Your task to perform on an android device: Open calendar and show me the first week of next month Image 0: 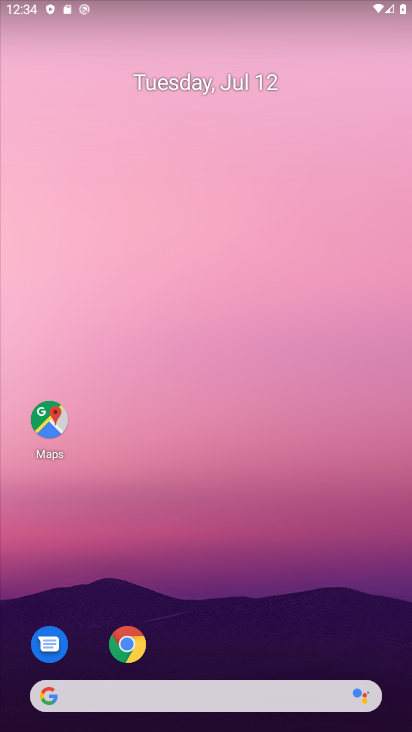
Step 0: drag from (195, 641) to (255, 20)
Your task to perform on an android device: Open calendar and show me the first week of next month Image 1: 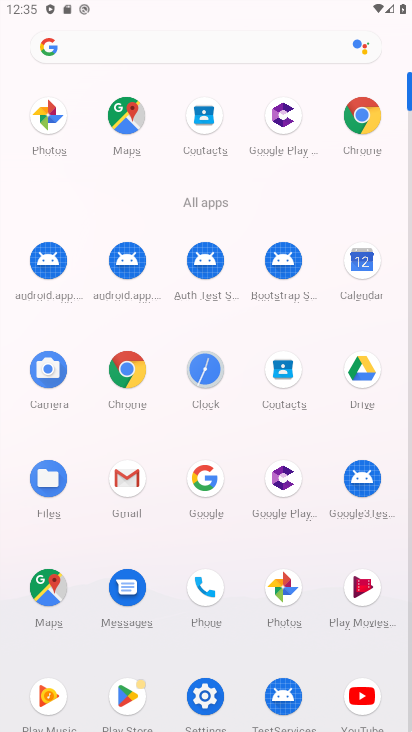
Step 1: click (364, 280)
Your task to perform on an android device: Open calendar and show me the first week of next month Image 2: 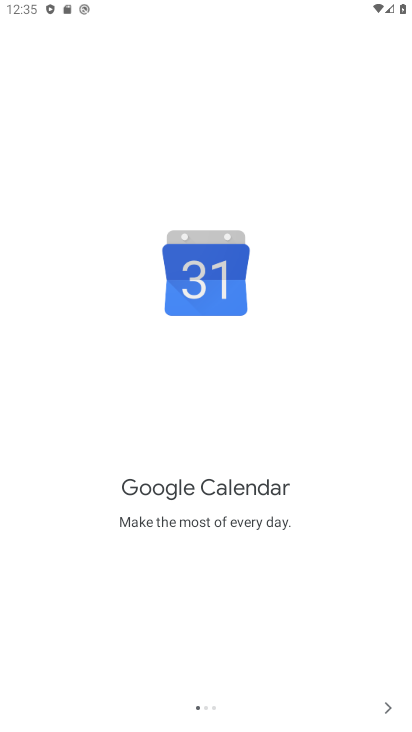
Step 2: click (386, 705)
Your task to perform on an android device: Open calendar and show me the first week of next month Image 3: 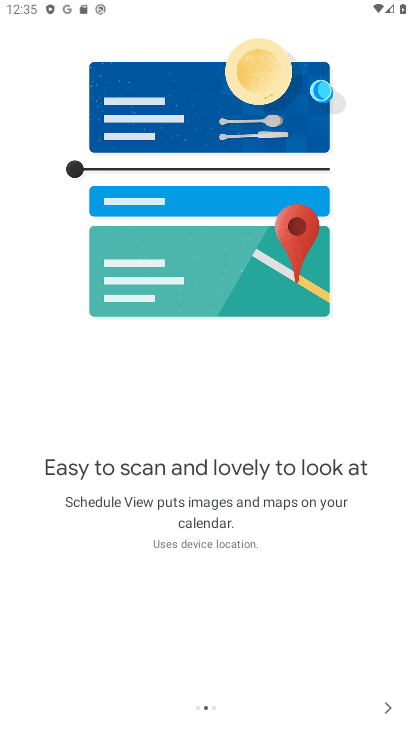
Step 3: click (386, 705)
Your task to perform on an android device: Open calendar and show me the first week of next month Image 4: 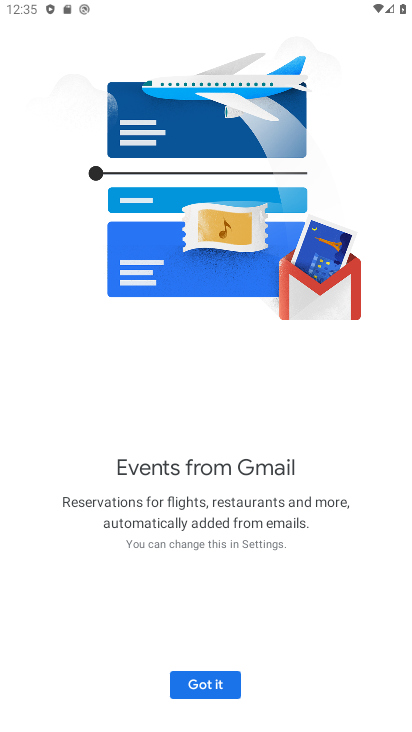
Step 4: click (195, 685)
Your task to perform on an android device: Open calendar and show me the first week of next month Image 5: 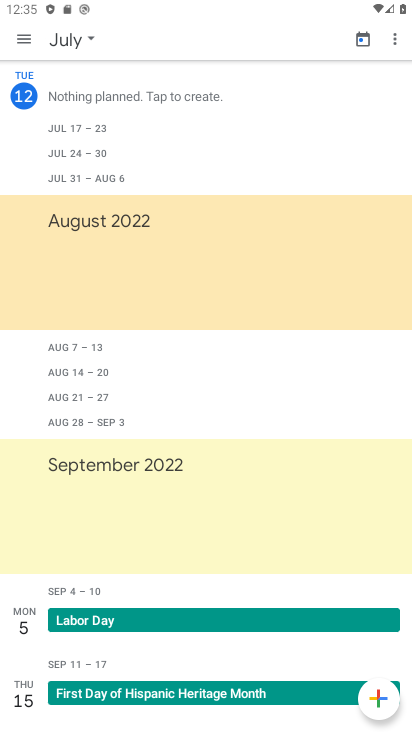
Step 5: click (25, 46)
Your task to perform on an android device: Open calendar and show me the first week of next month Image 6: 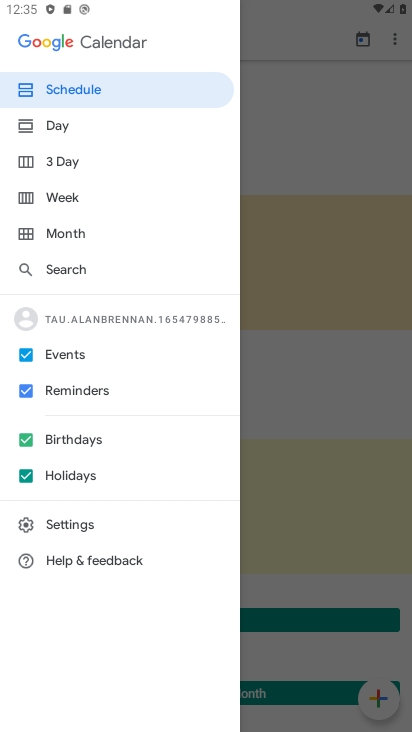
Step 6: click (73, 198)
Your task to perform on an android device: Open calendar and show me the first week of next month Image 7: 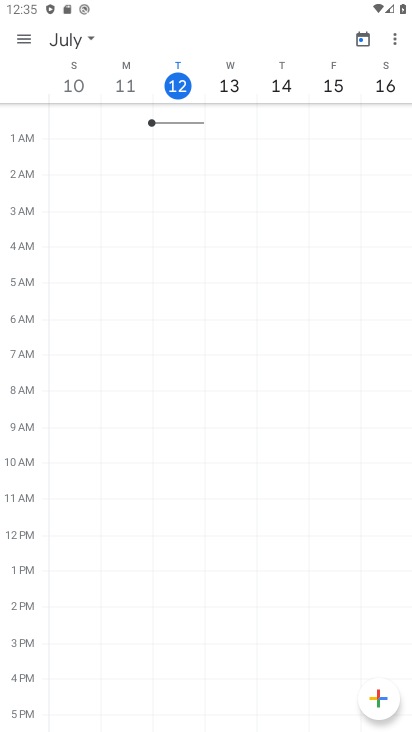
Step 7: task complete